Your task to perform on an android device: change notification settings in the gmail app Image 0: 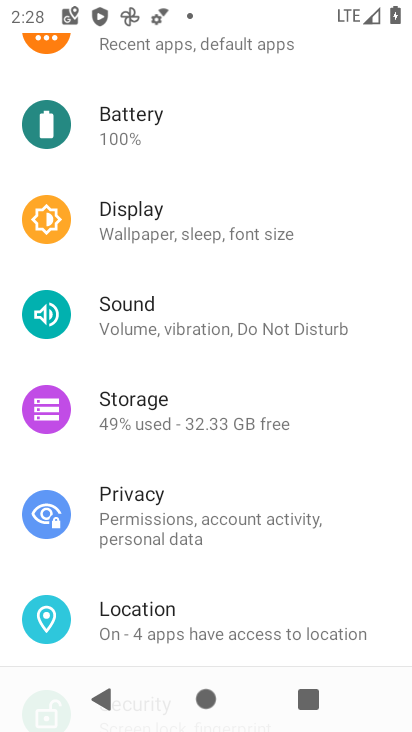
Step 0: press home button
Your task to perform on an android device: change notification settings in the gmail app Image 1: 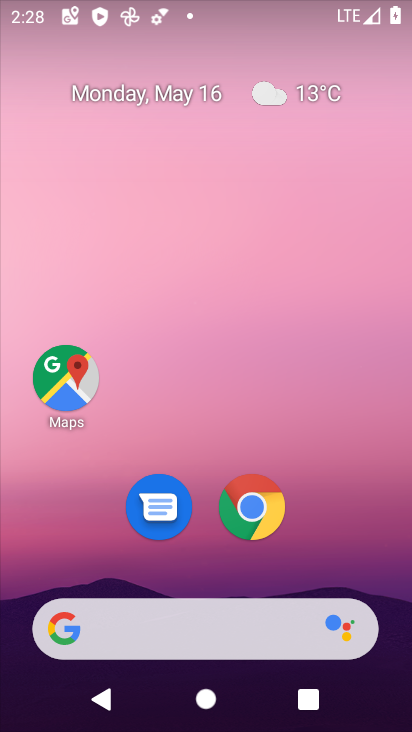
Step 1: drag from (292, 219) to (240, 45)
Your task to perform on an android device: change notification settings in the gmail app Image 2: 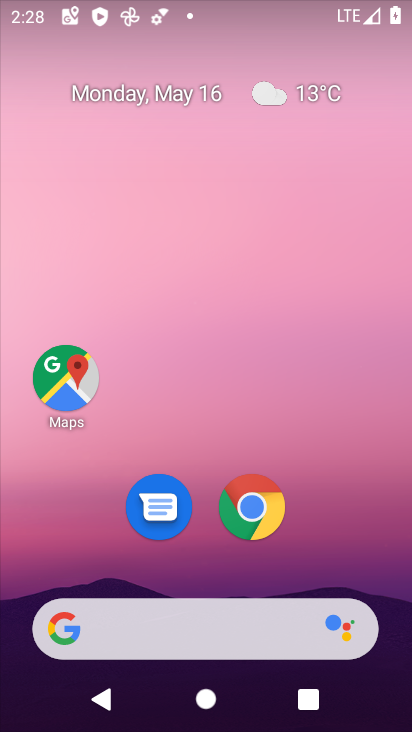
Step 2: drag from (323, 508) to (201, 5)
Your task to perform on an android device: change notification settings in the gmail app Image 3: 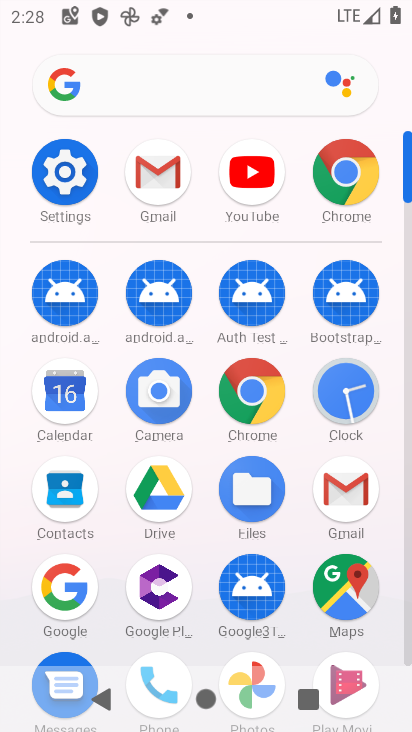
Step 3: click (174, 217)
Your task to perform on an android device: change notification settings in the gmail app Image 4: 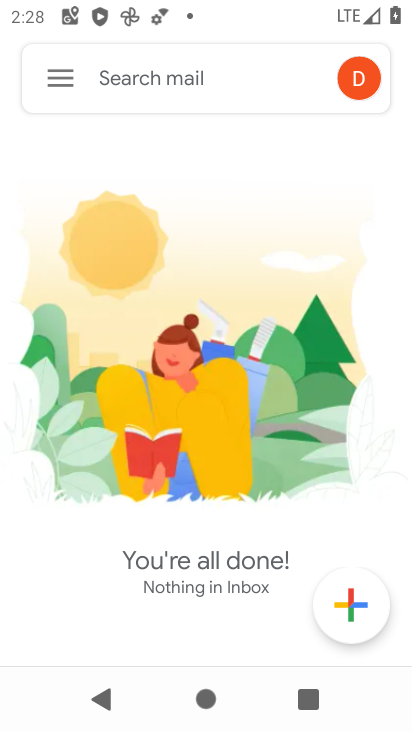
Step 4: click (58, 72)
Your task to perform on an android device: change notification settings in the gmail app Image 5: 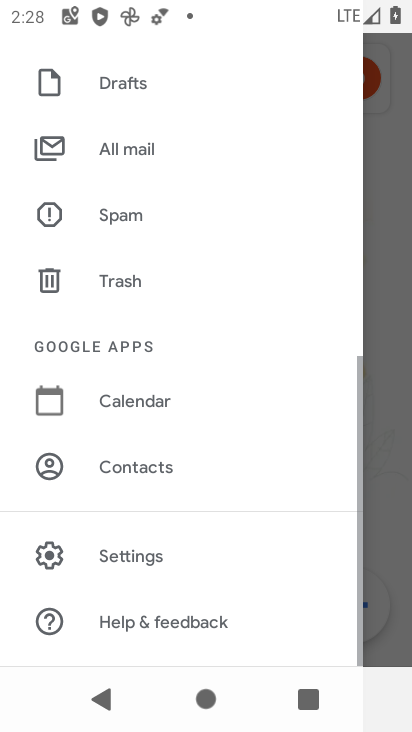
Step 5: drag from (168, 569) to (169, 525)
Your task to perform on an android device: change notification settings in the gmail app Image 6: 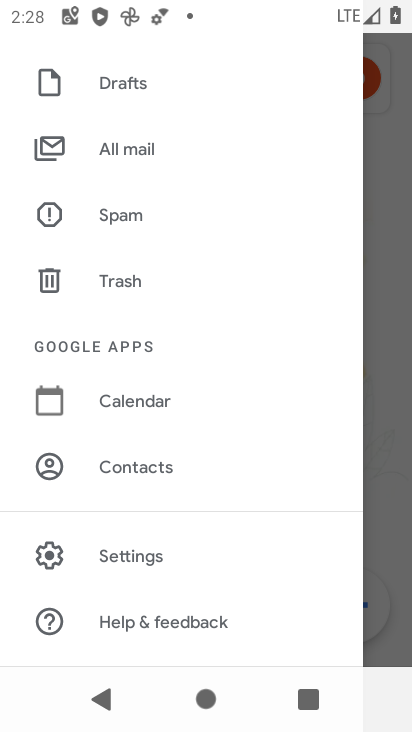
Step 6: click (178, 550)
Your task to perform on an android device: change notification settings in the gmail app Image 7: 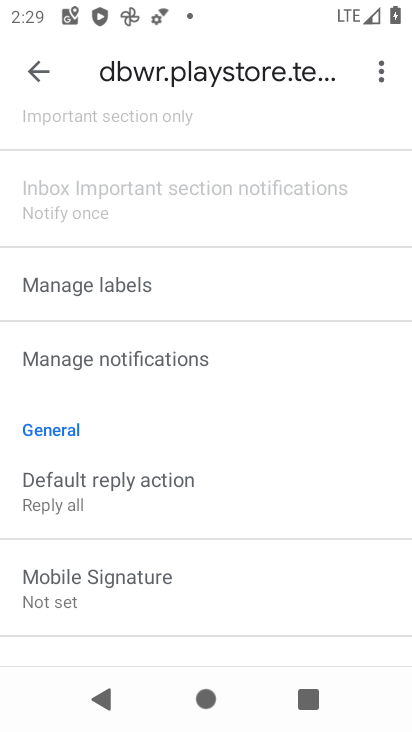
Step 7: click (119, 393)
Your task to perform on an android device: change notification settings in the gmail app Image 8: 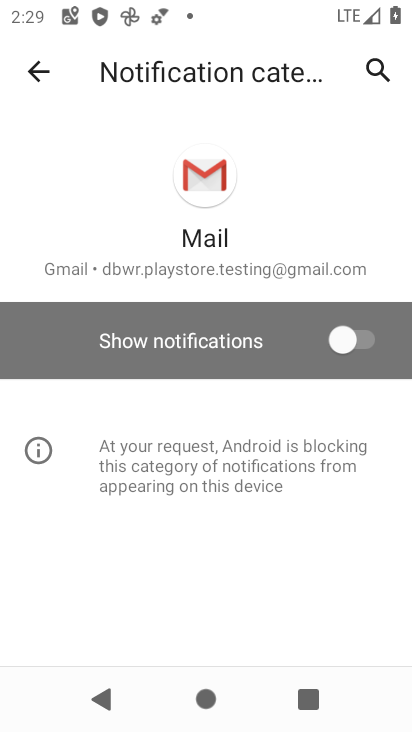
Step 8: click (355, 337)
Your task to perform on an android device: change notification settings in the gmail app Image 9: 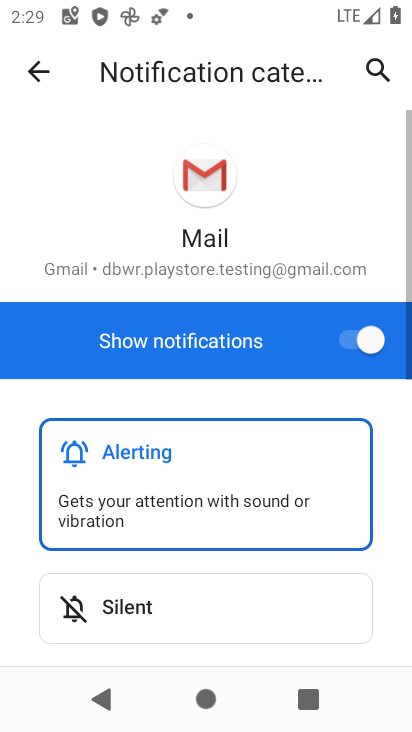
Step 9: task complete